Your task to perform on an android device: manage bookmarks in the chrome app Image 0: 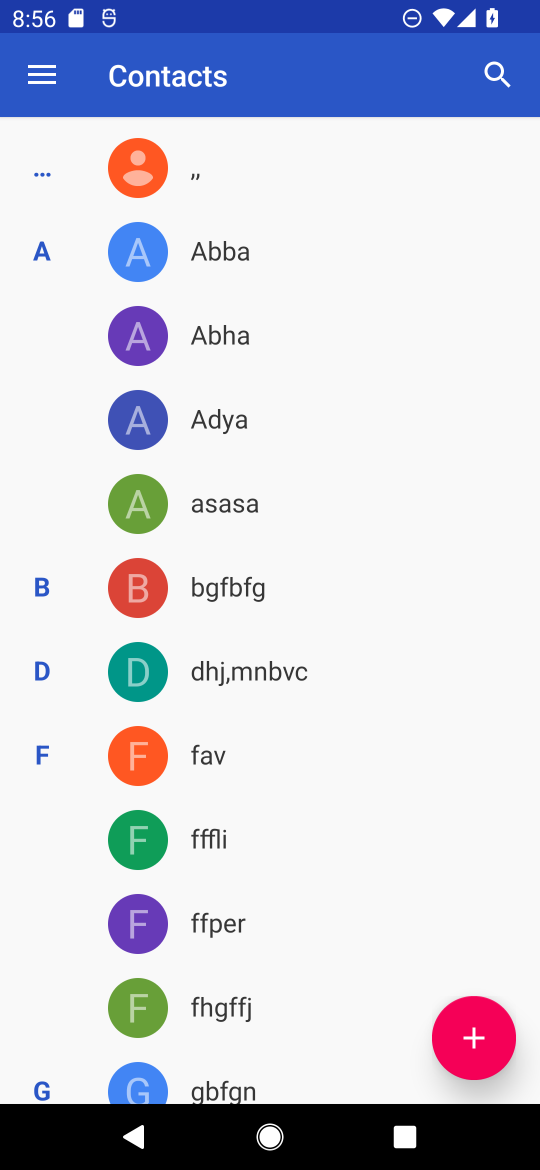
Step 0: press home button
Your task to perform on an android device: manage bookmarks in the chrome app Image 1: 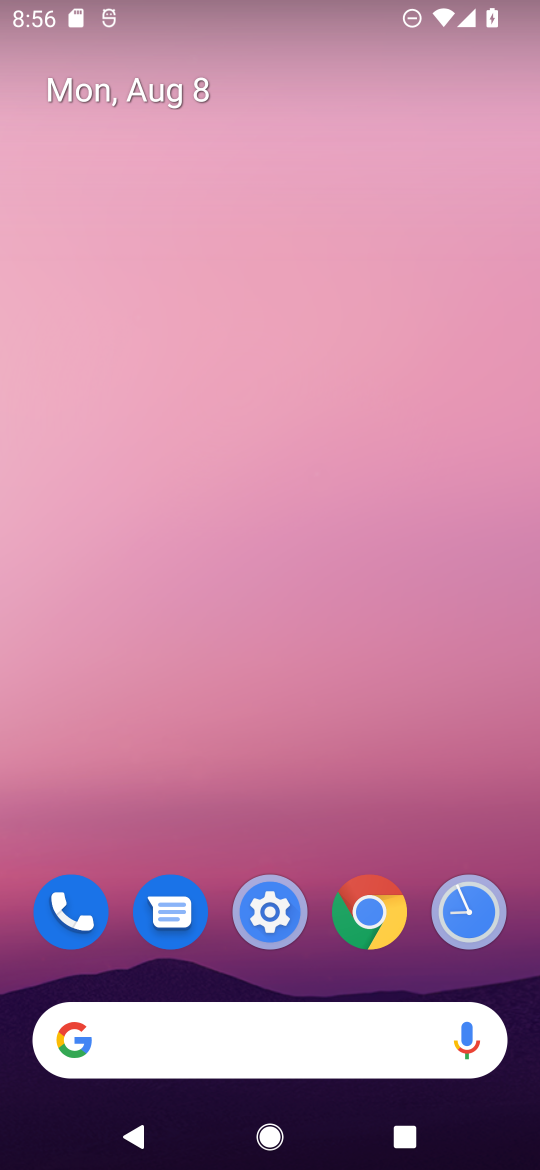
Step 1: drag from (437, 971) to (295, 51)
Your task to perform on an android device: manage bookmarks in the chrome app Image 2: 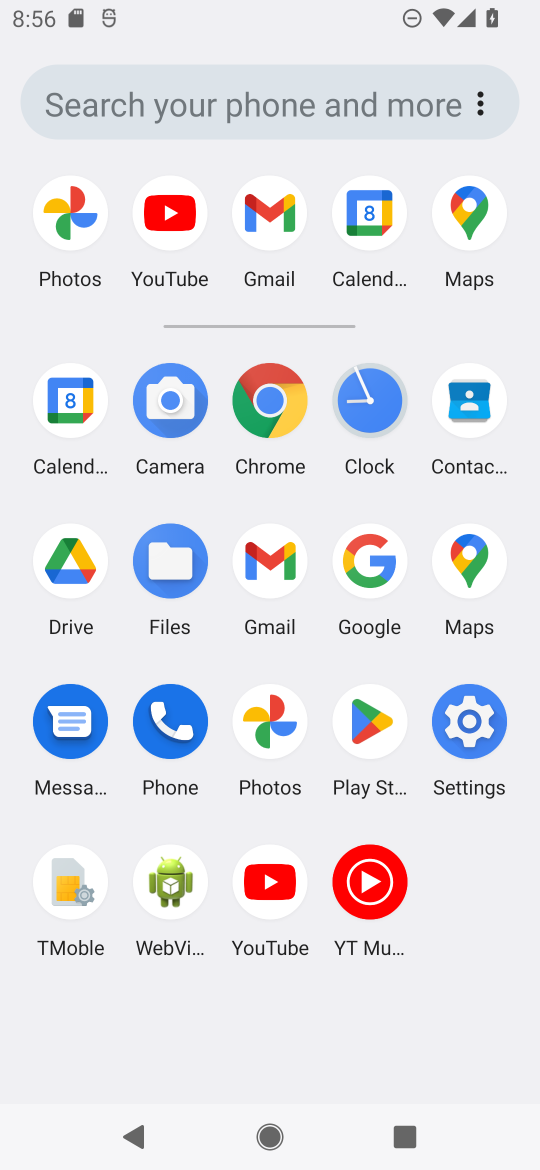
Step 2: click (262, 423)
Your task to perform on an android device: manage bookmarks in the chrome app Image 3: 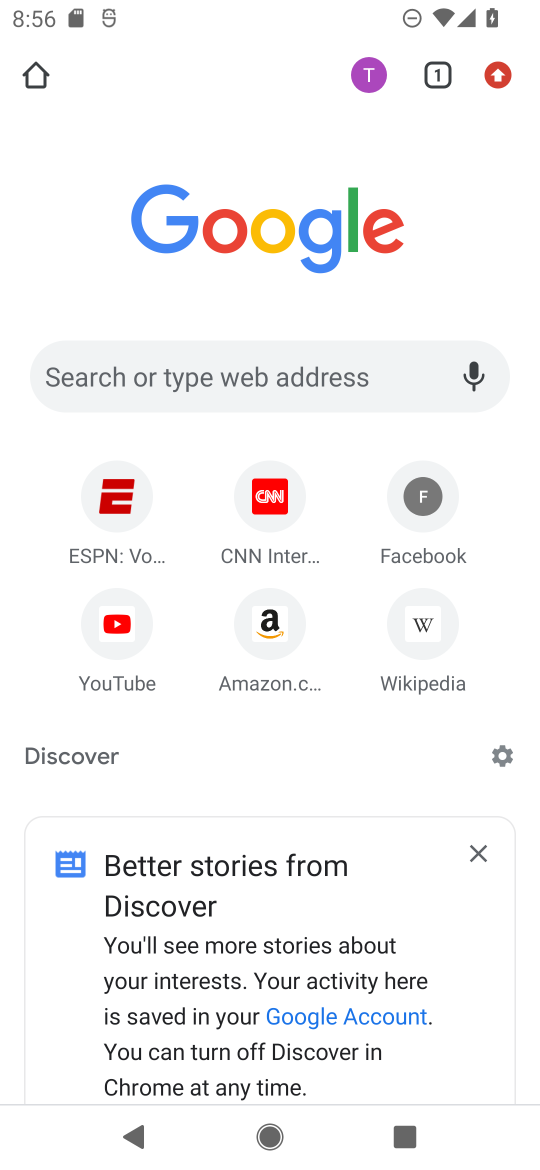
Step 3: task complete